Your task to perform on an android device: turn pop-ups on in chrome Image 0: 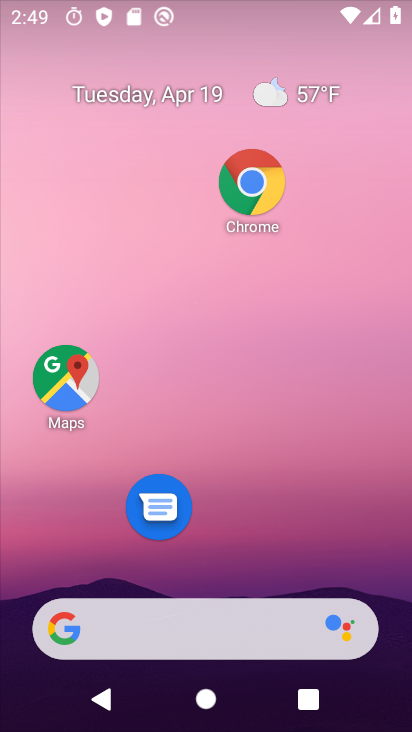
Step 0: drag from (232, 551) to (278, 82)
Your task to perform on an android device: turn pop-ups on in chrome Image 1: 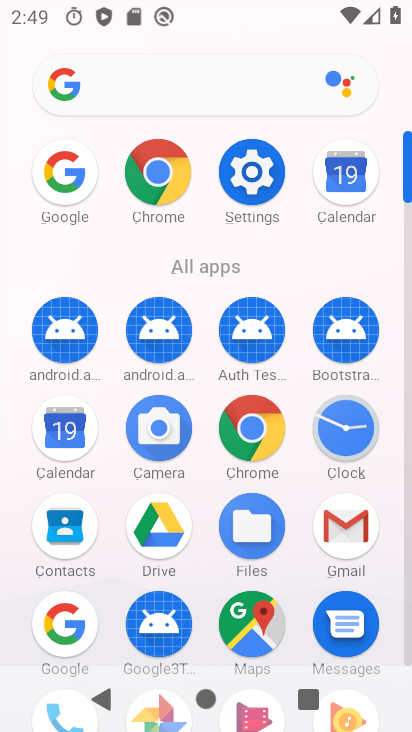
Step 1: click (166, 204)
Your task to perform on an android device: turn pop-ups on in chrome Image 2: 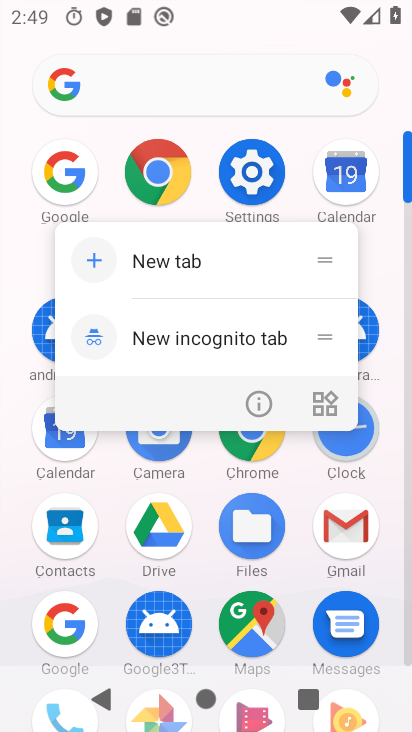
Step 2: click (162, 161)
Your task to perform on an android device: turn pop-ups on in chrome Image 3: 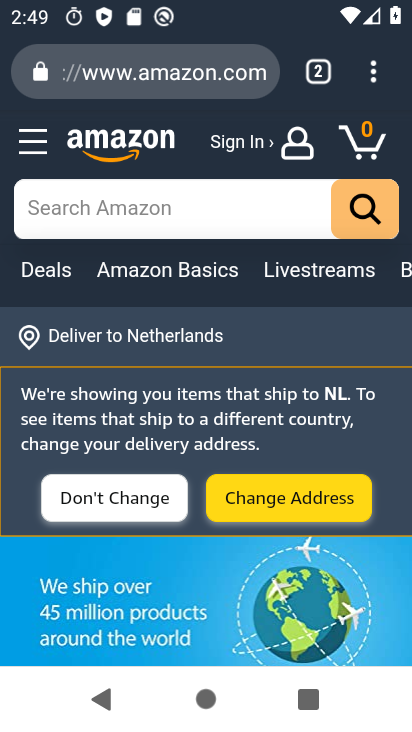
Step 3: click (383, 81)
Your task to perform on an android device: turn pop-ups on in chrome Image 4: 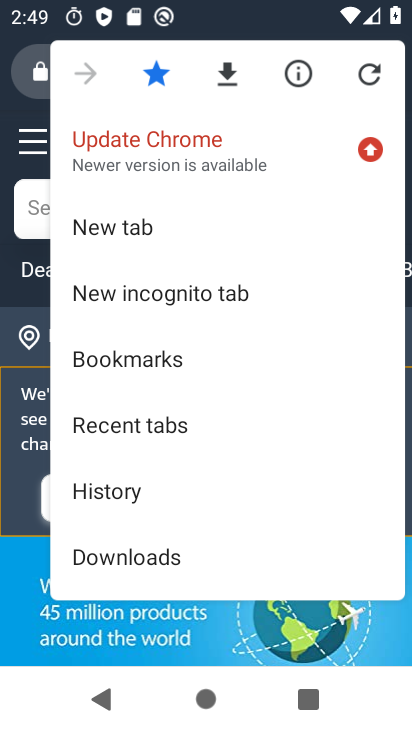
Step 4: drag from (262, 401) to (296, 220)
Your task to perform on an android device: turn pop-ups on in chrome Image 5: 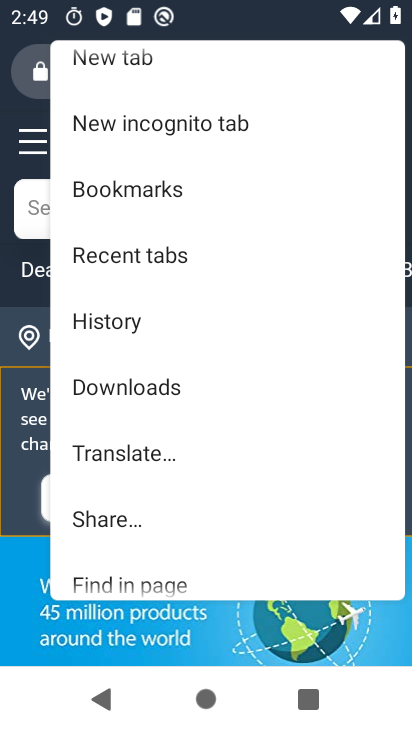
Step 5: drag from (198, 481) to (260, 262)
Your task to perform on an android device: turn pop-ups on in chrome Image 6: 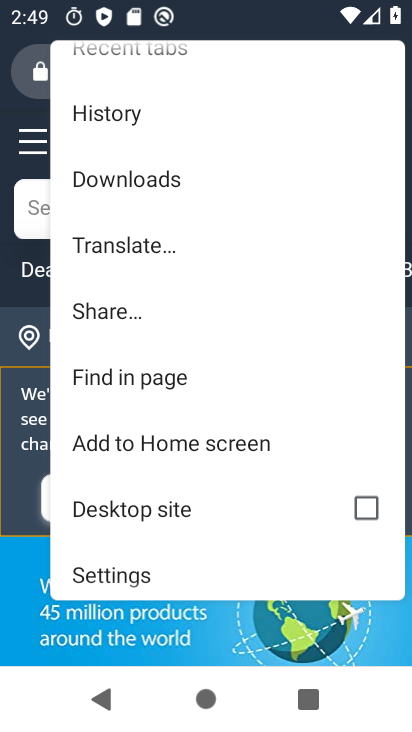
Step 6: click (201, 571)
Your task to perform on an android device: turn pop-ups on in chrome Image 7: 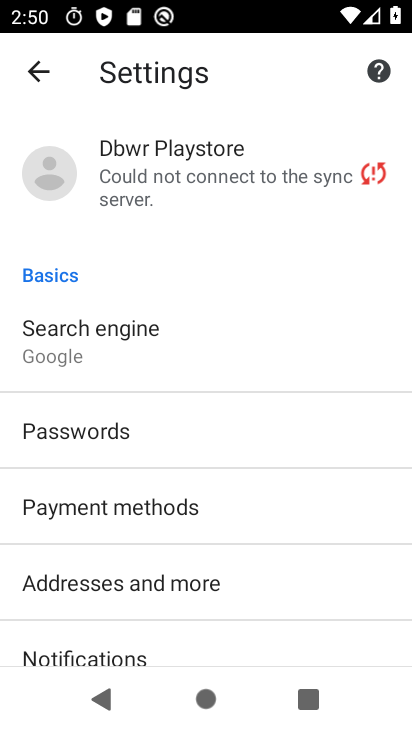
Step 7: drag from (208, 496) to (266, 107)
Your task to perform on an android device: turn pop-ups on in chrome Image 8: 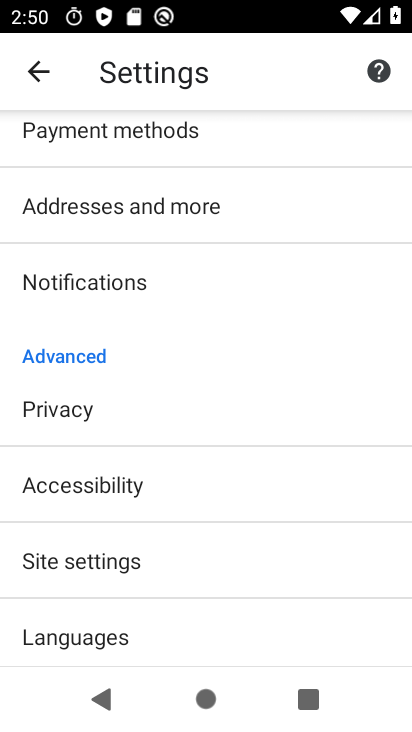
Step 8: click (139, 562)
Your task to perform on an android device: turn pop-ups on in chrome Image 9: 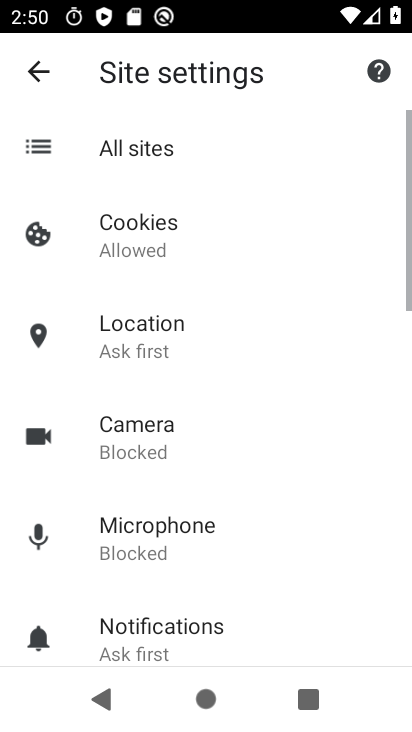
Step 9: drag from (249, 561) to (266, 386)
Your task to perform on an android device: turn pop-ups on in chrome Image 10: 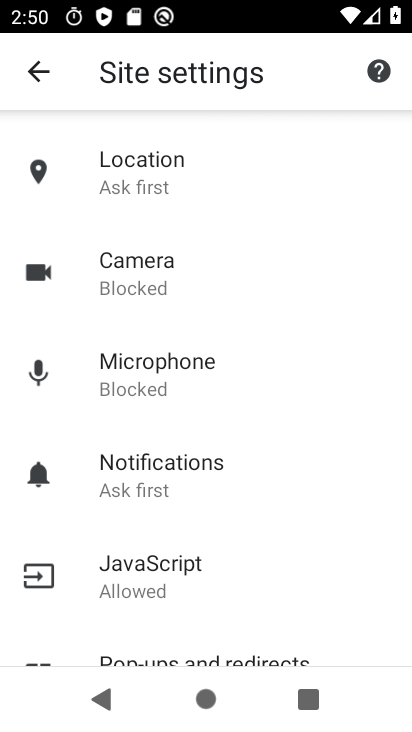
Step 10: drag from (249, 481) to (279, 263)
Your task to perform on an android device: turn pop-ups on in chrome Image 11: 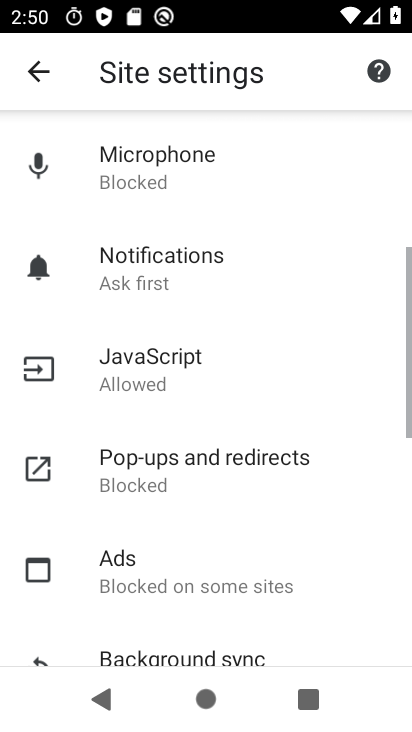
Step 11: click (269, 464)
Your task to perform on an android device: turn pop-ups on in chrome Image 12: 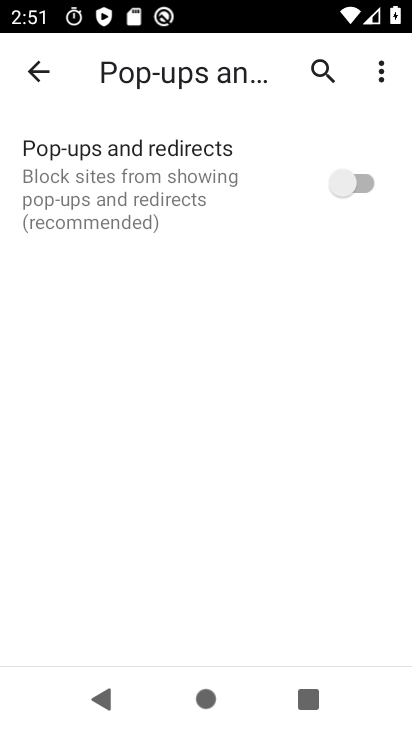
Step 12: click (364, 193)
Your task to perform on an android device: turn pop-ups on in chrome Image 13: 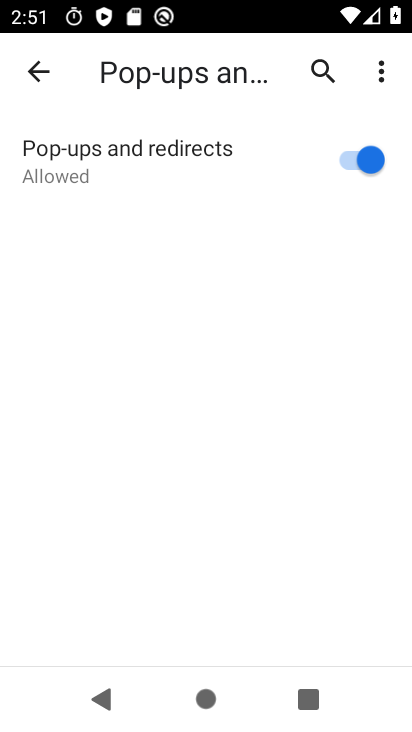
Step 13: task complete